Your task to perform on an android device: Open Google Image 0: 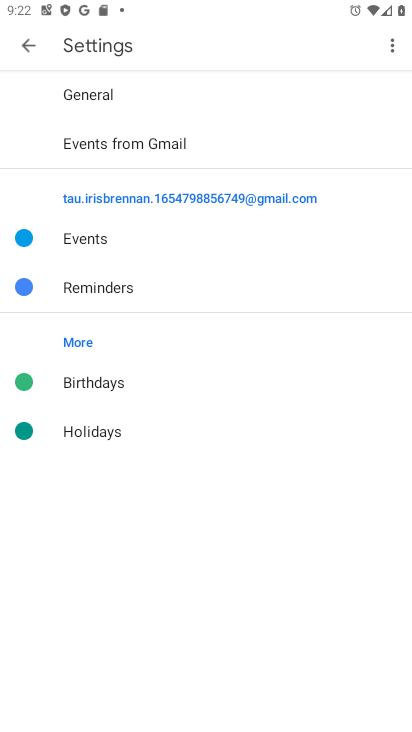
Step 0: press home button
Your task to perform on an android device: Open Google Image 1: 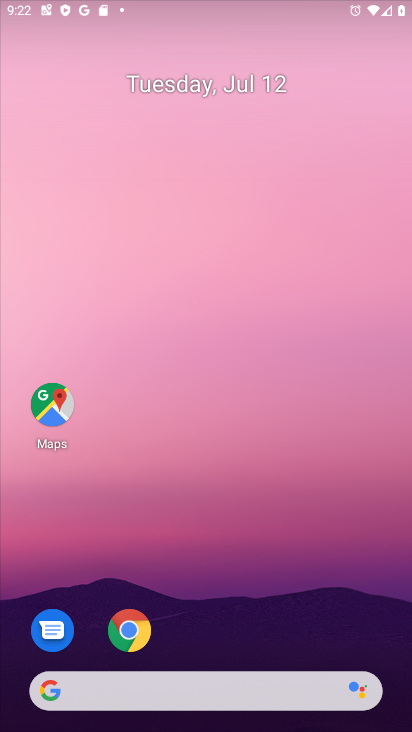
Step 1: drag from (203, 627) to (222, 187)
Your task to perform on an android device: Open Google Image 2: 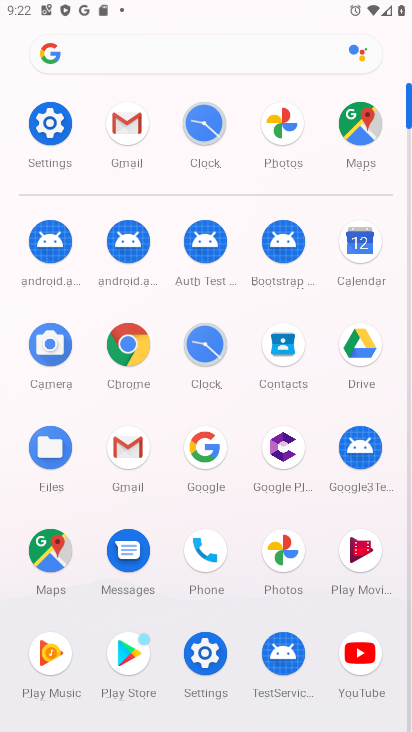
Step 2: click (205, 446)
Your task to perform on an android device: Open Google Image 3: 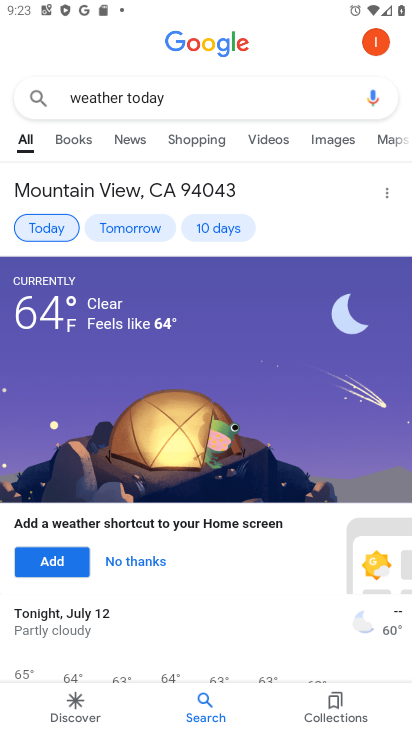
Step 3: task complete